Your task to perform on an android device: turn on javascript in the chrome app Image 0: 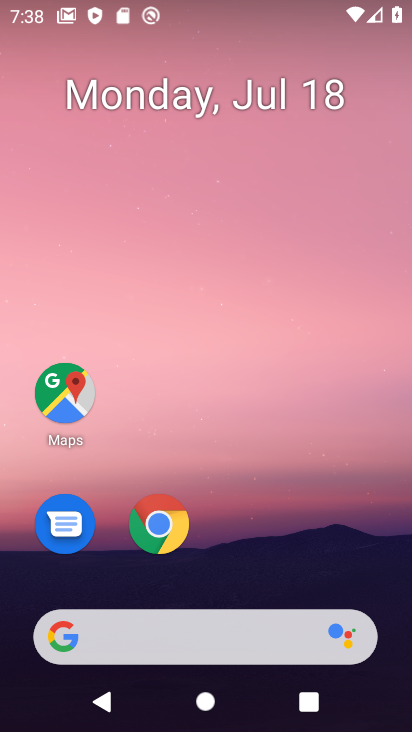
Step 0: click (166, 528)
Your task to perform on an android device: turn on javascript in the chrome app Image 1: 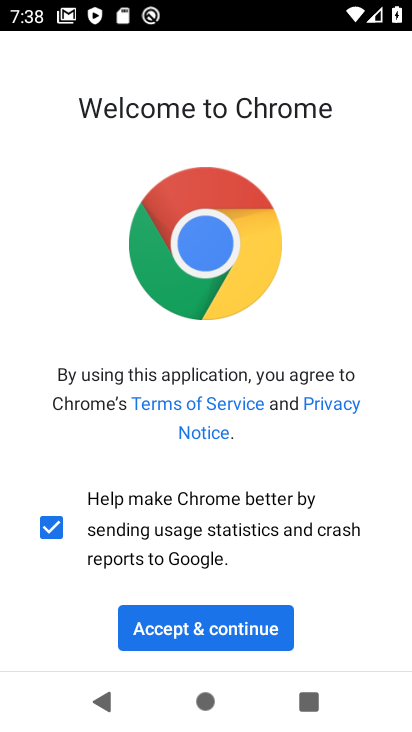
Step 1: click (230, 626)
Your task to perform on an android device: turn on javascript in the chrome app Image 2: 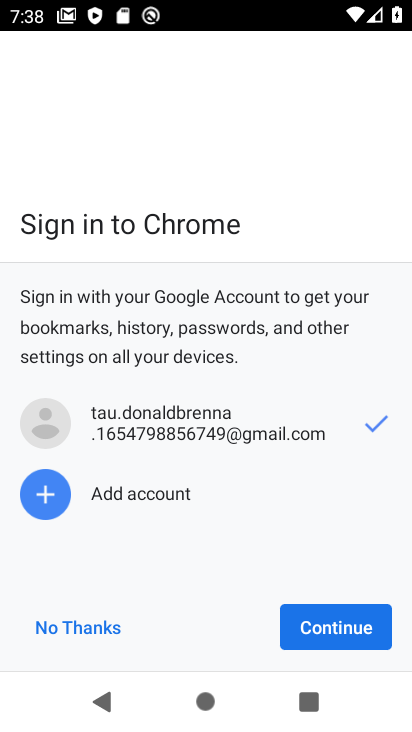
Step 2: click (311, 639)
Your task to perform on an android device: turn on javascript in the chrome app Image 3: 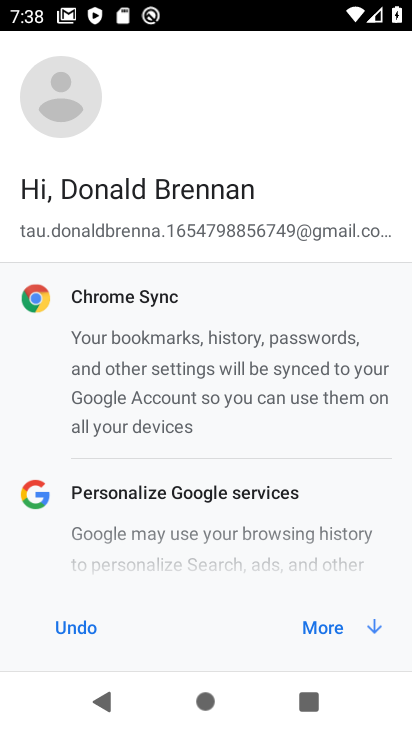
Step 3: click (320, 623)
Your task to perform on an android device: turn on javascript in the chrome app Image 4: 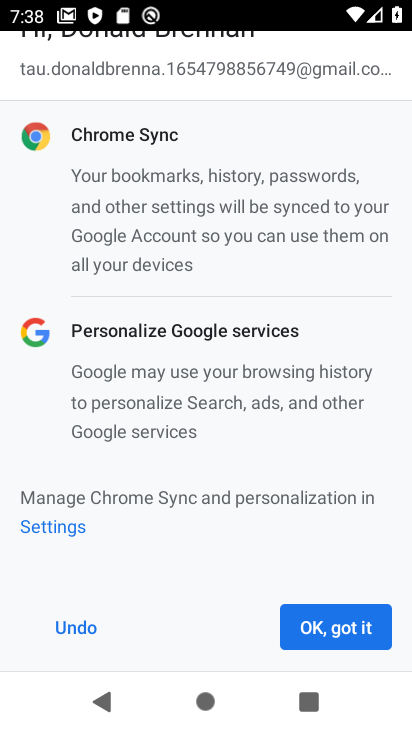
Step 4: click (320, 623)
Your task to perform on an android device: turn on javascript in the chrome app Image 5: 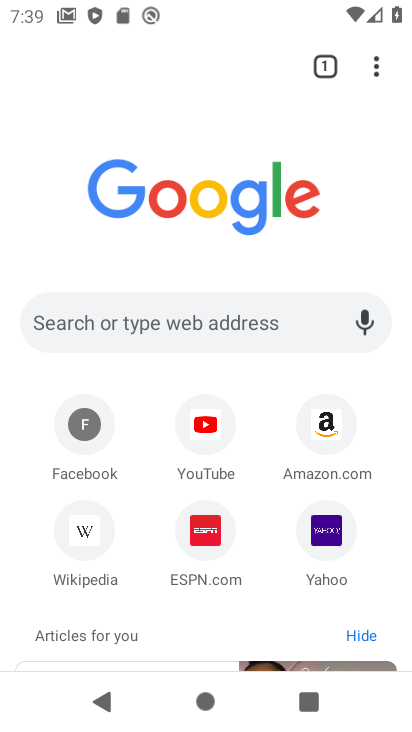
Step 5: click (375, 72)
Your task to perform on an android device: turn on javascript in the chrome app Image 6: 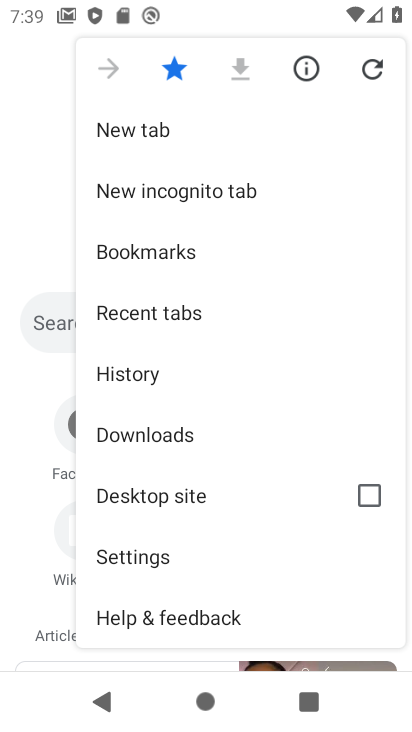
Step 6: click (153, 563)
Your task to perform on an android device: turn on javascript in the chrome app Image 7: 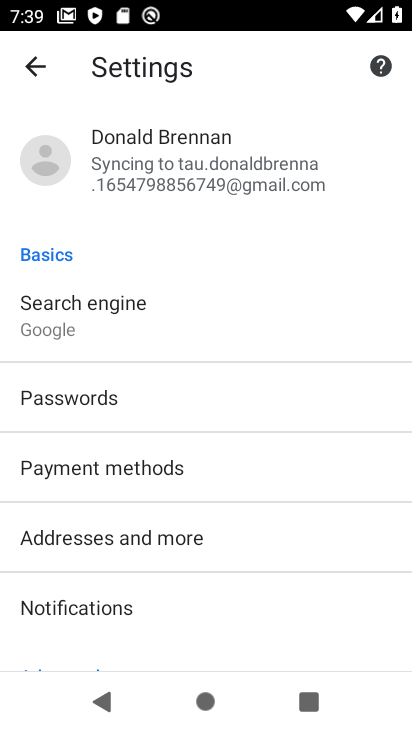
Step 7: drag from (250, 575) to (220, 163)
Your task to perform on an android device: turn on javascript in the chrome app Image 8: 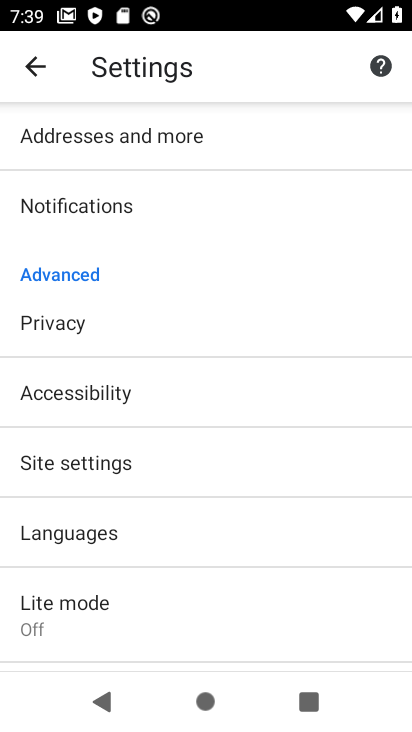
Step 8: click (92, 463)
Your task to perform on an android device: turn on javascript in the chrome app Image 9: 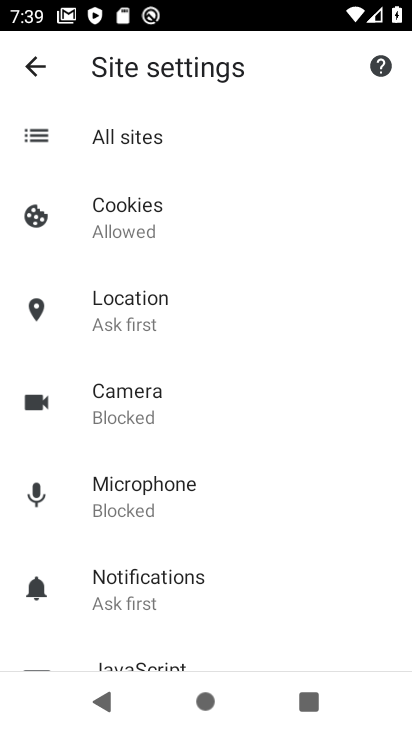
Step 9: drag from (245, 504) to (257, 390)
Your task to perform on an android device: turn on javascript in the chrome app Image 10: 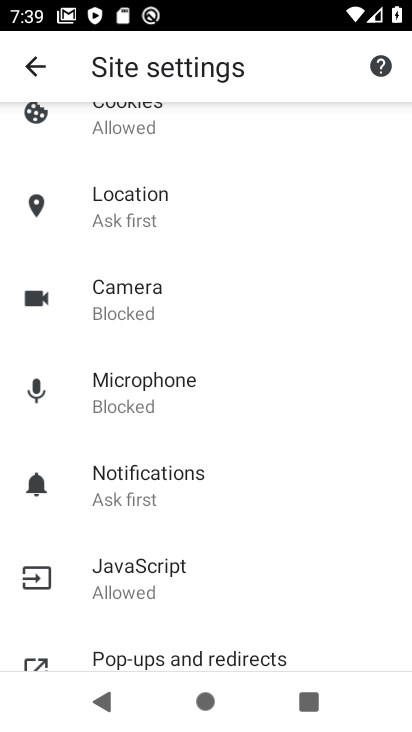
Step 10: click (150, 569)
Your task to perform on an android device: turn on javascript in the chrome app Image 11: 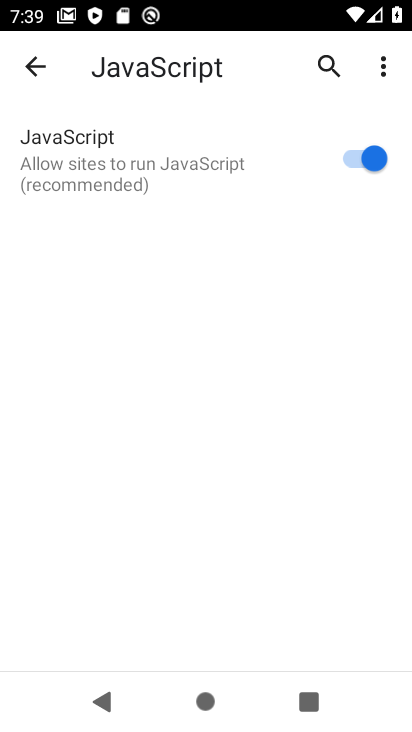
Step 11: task complete